Your task to perform on an android device: toggle data saver in the chrome app Image 0: 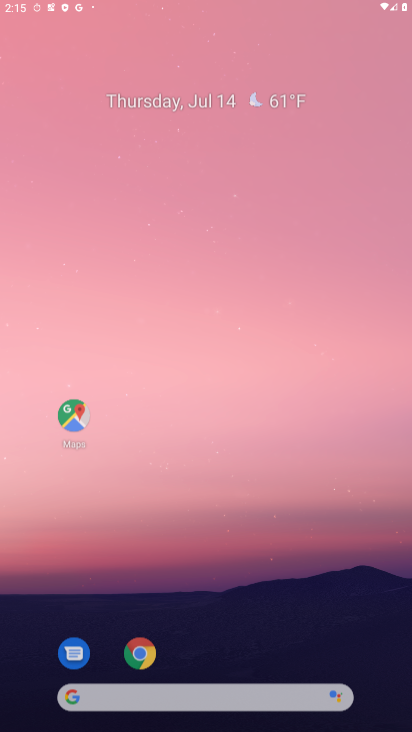
Step 0: press home button
Your task to perform on an android device: toggle data saver in the chrome app Image 1: 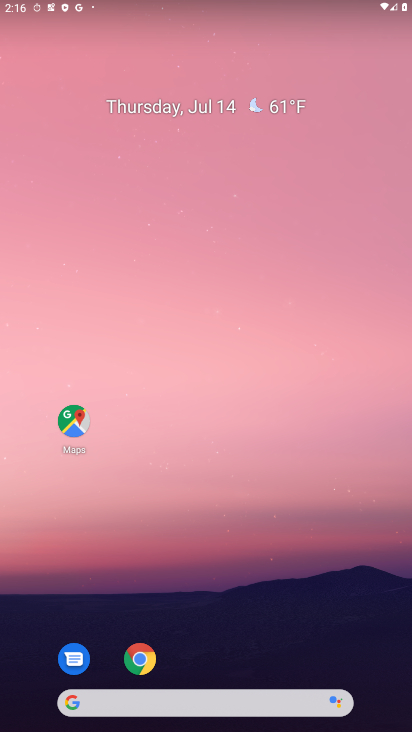
Step 1: press home button
Your task to perform on an android device: toggle data saver in the chrome app Image 2: 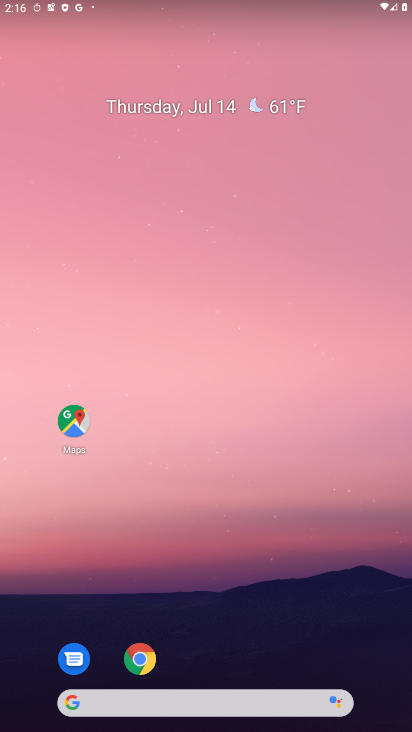
Step 2: click (147, 657)
Your task to perform on an android device: toggle data saver in the chrome app Image 3: 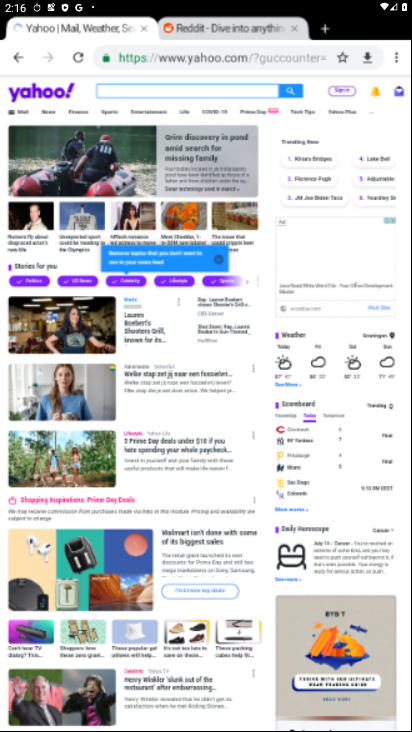
Step 3: drag from (399, 54) to (331, 323)
Your task to perform on an android device: toggle data saver in the chrome app Image 4: 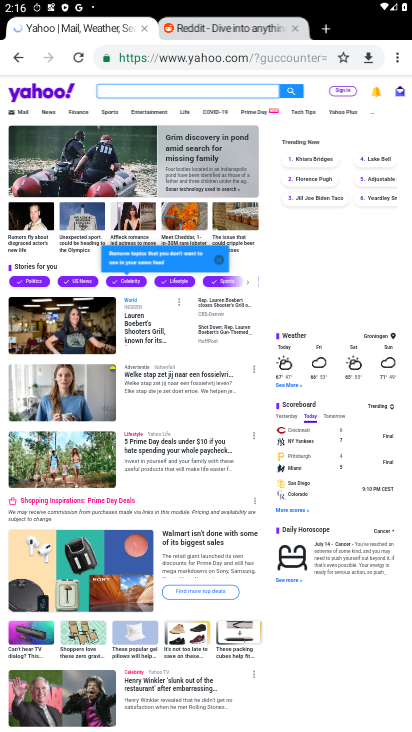
Step 4: drag from (394, 58) to (303, 428)
Your task to perform on an android device: toggle data saver in the chrome app Image 5: 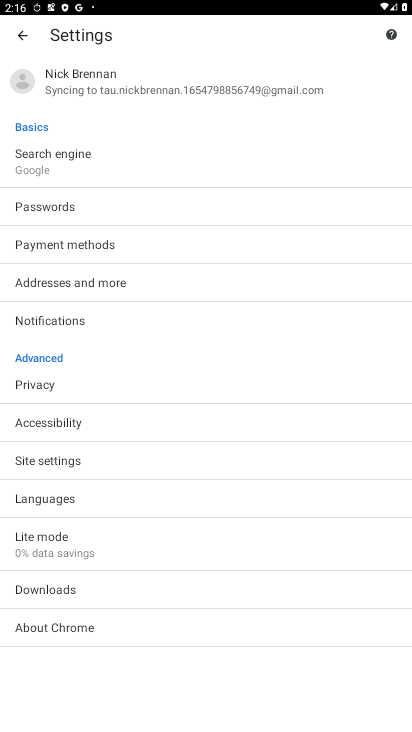
Step 5: click (29, 544)
Your task to perform on an android device: toggle data saver in the chrome app Image 6: 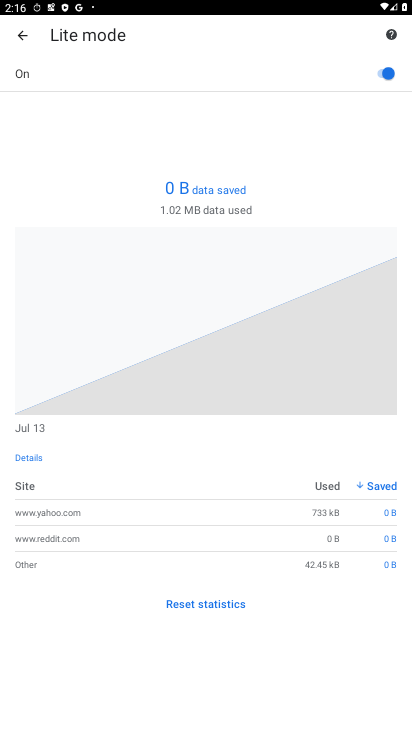
Step 6: click (375, 76)
Your task to perform on an android device: toggle data saver in the chrome app Image 7: 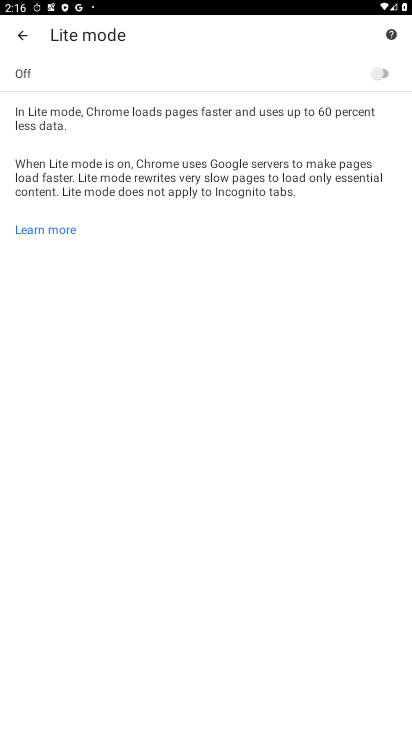
Step 7: task complete